Your task to perform on an android device: open a new tab in the chrome app Image 0: 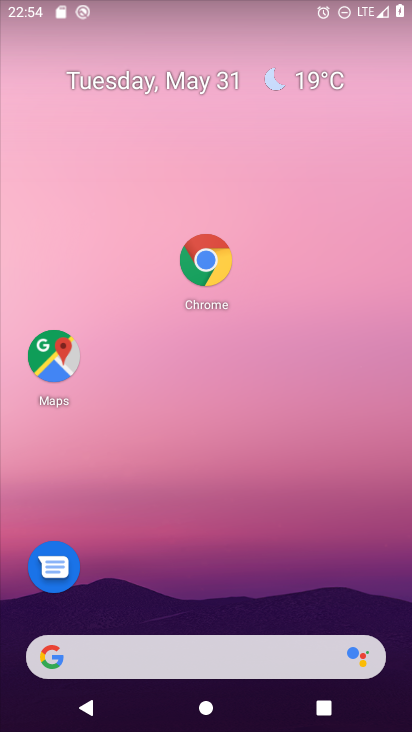
Step 0: click (197, 269)
Your task to perform on an android device: open a new tab in the chrome app Image 1: 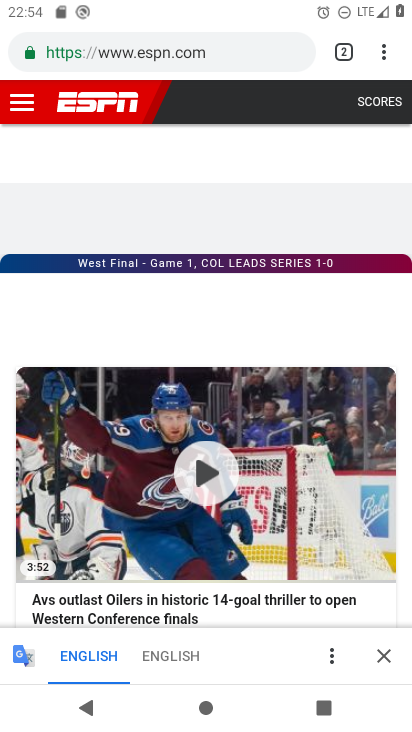
Step 1: click (384, 42)
Your task to perform on an android device: open a new tab in the chrome app Image 2: 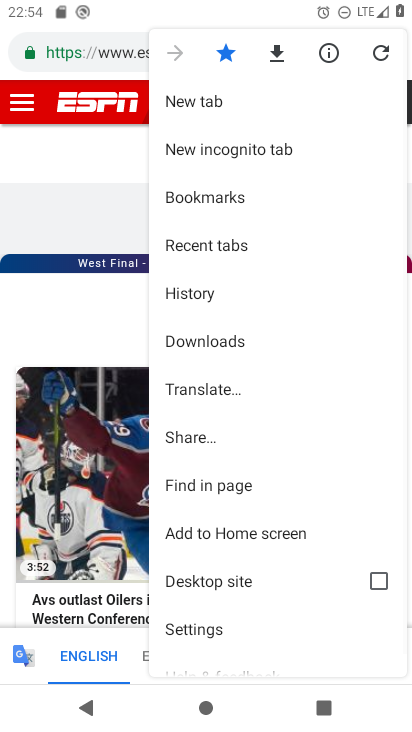
Step 2: click (205, 101)
Your task to perform on an android device: open a new tab in the chrome app Image 3: 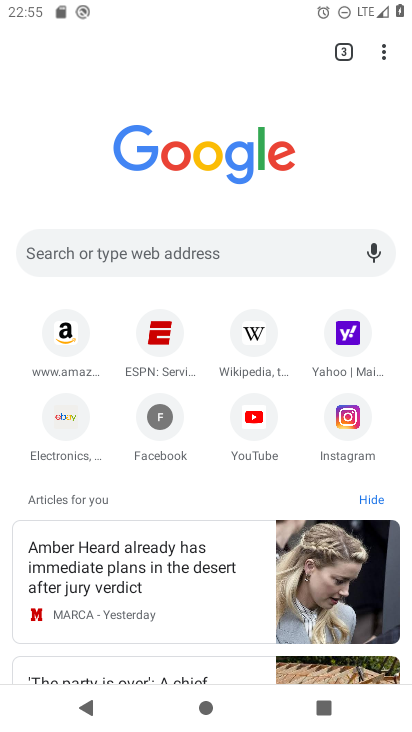
Step 3: task complete